Your task to perform on an android device: turn on location history Image 0: 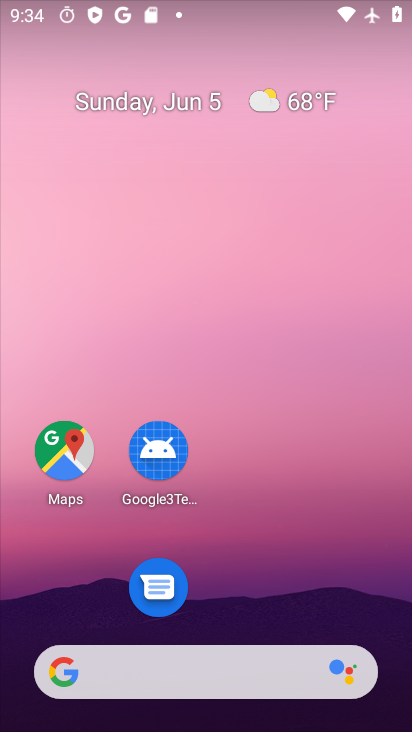
Step 0: drag from (310, 596) to (159, 213)
Your task to perform on an android device: turn on location history Image 1: 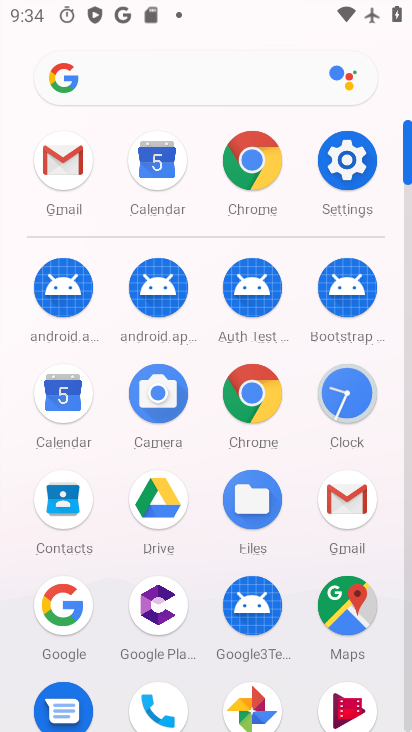
Step 1: click (356, 165)
Your task to perform on an android device: turn on location history Image 2: 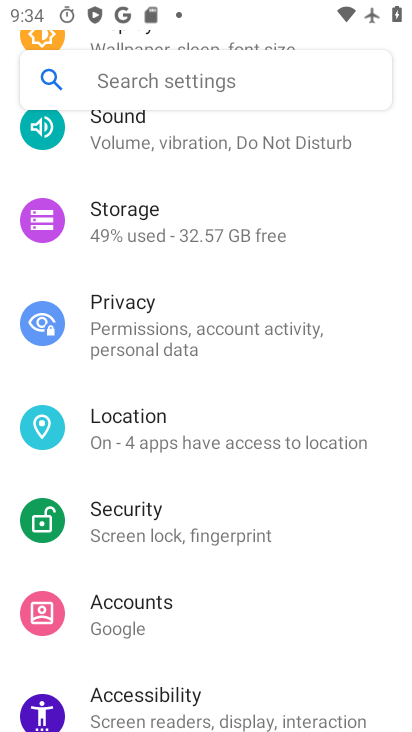
Step 2: drag from (227, 667) to (123, 417)
Your task to perform on an android device: turn on location history Image 3: 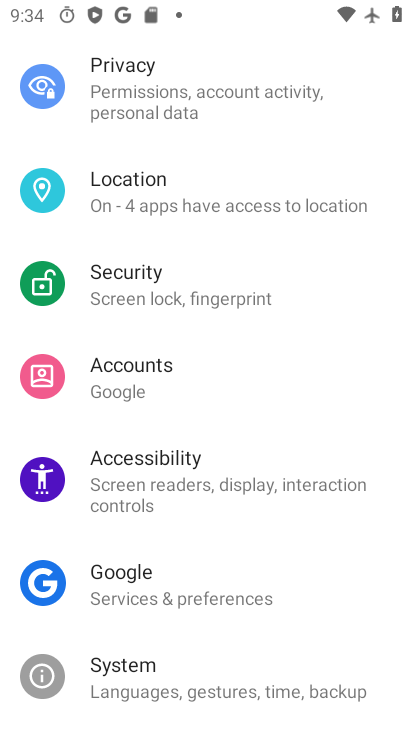
Step 3: click (135, 198)
Your task to perform on an android device: turn on location history Image 4: 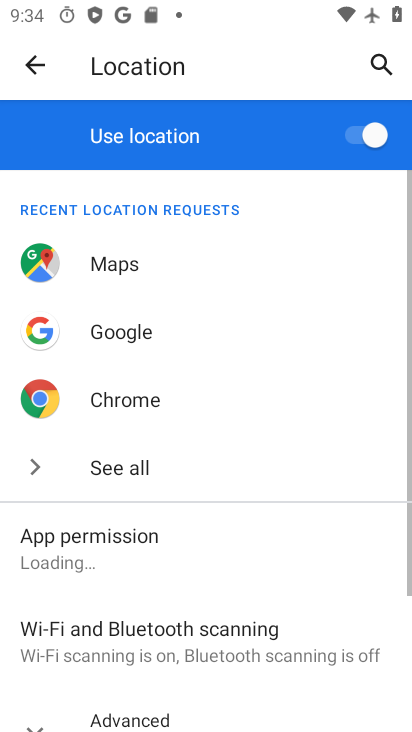
Step 4: click (135, 198)
Your task to perform on an android device: turn on location history Image 5: 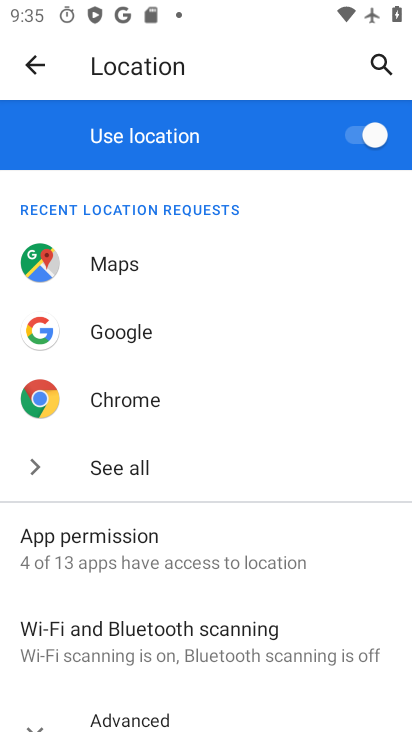
Step 5: click (185, 529)
Your task to perform on an android device: turn on location history Image 6: 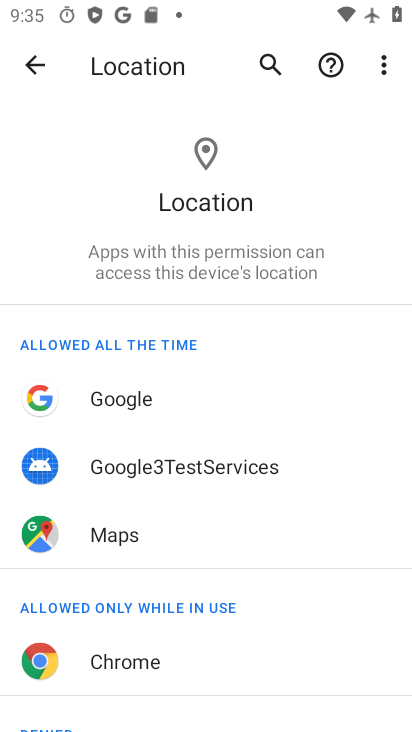
Step 6: click (46, 56)
Your task to perform on an android device: turn on location history Image 7: 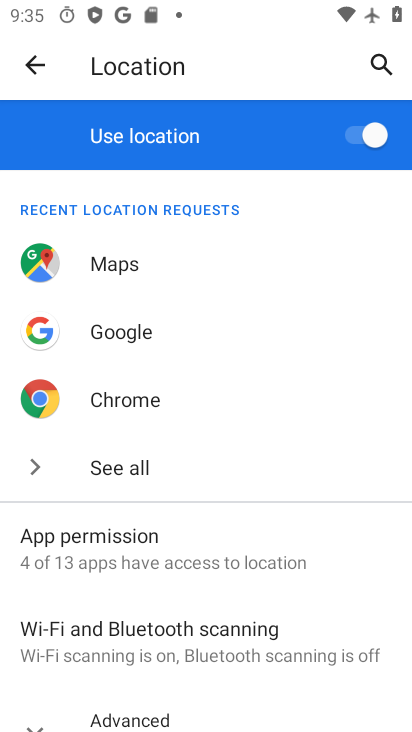
Step 7: click (135, 711)
Your task to perform on an android device: turn on location history Image 8: 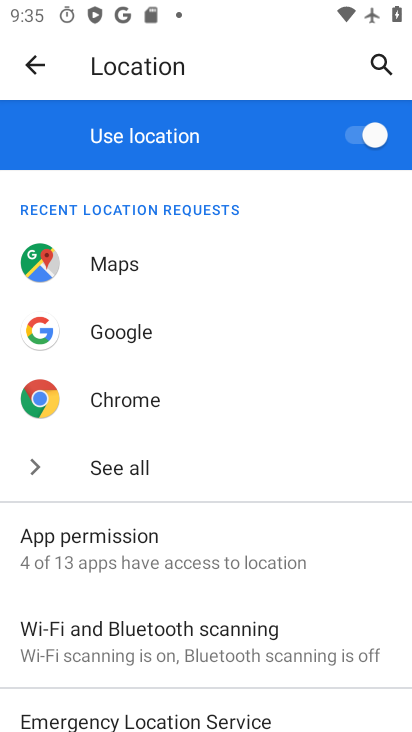
Step 8: drag from (122, 665) to (125, 299)
Your task to perform on an android device: turn on location history Image 9: 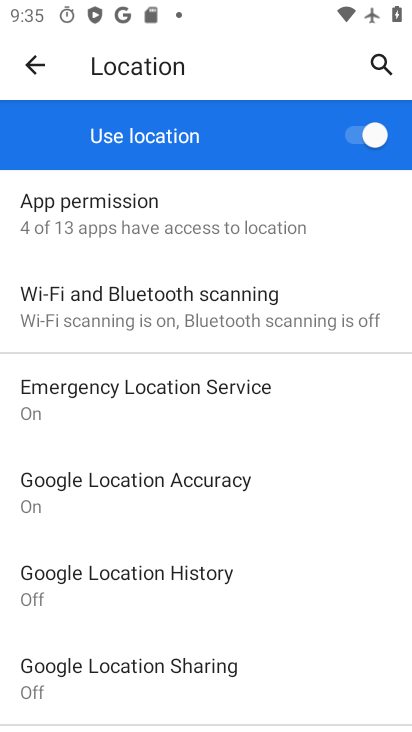
Step 9: click (140, 579)
Your task to perform on an android device: turn on location history Image 10: 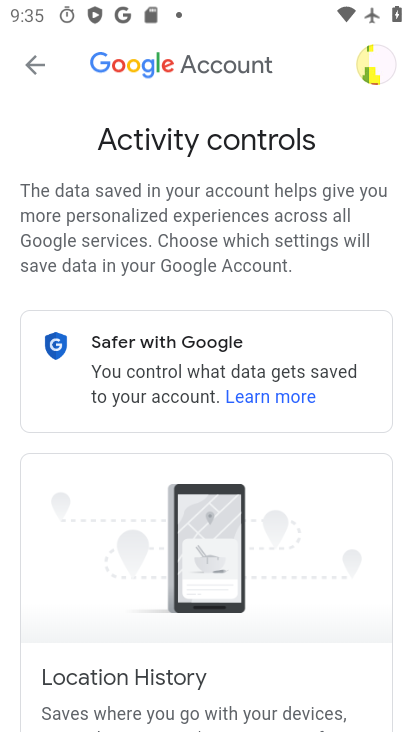
Step 10: task complete